Your task to perform on an android device: open a new tab in the chrome app Image 0: 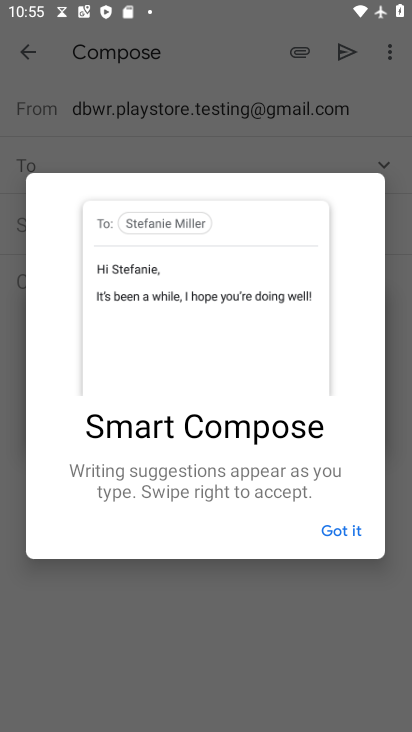
Step 0: press back button
Your task to perform on an android device: open a new tab in the chrome app Image 1: 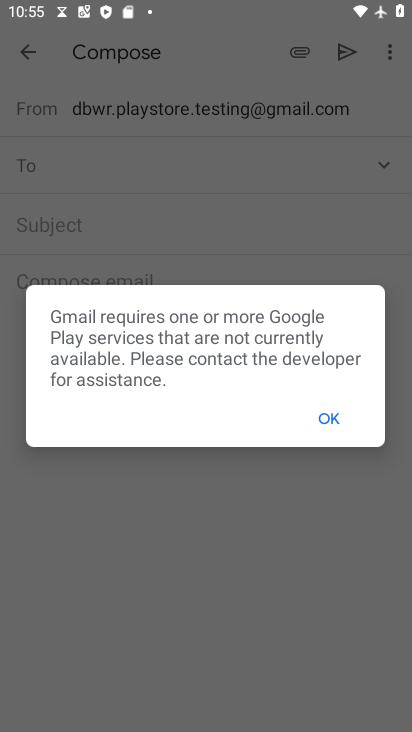
Step 1: press home button
Your task to perform on an android device: open a new tab in the chrome app Image 2: 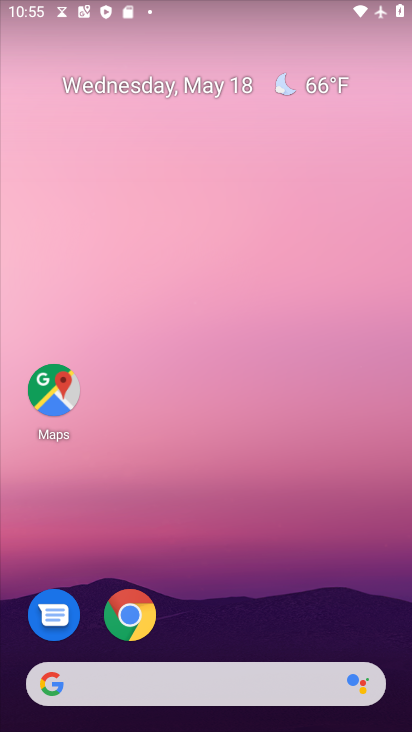
Step 2: drag from (206, 524) to (220, 44)
Your task to perform on an android device: open a new tab in the chrome app Image 3: 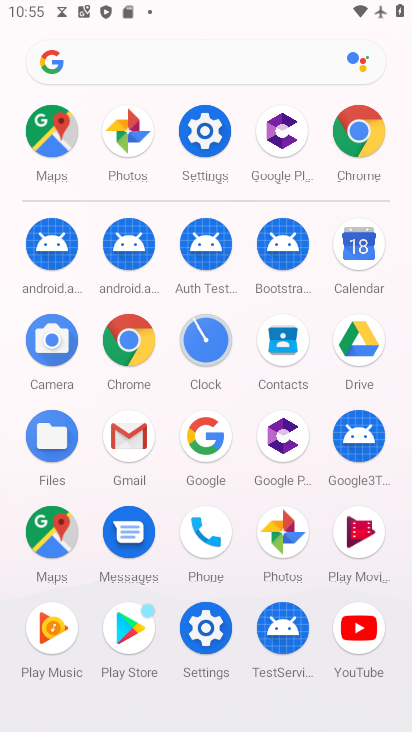
Step 3: drag from (13, 510) to (19, 227)
Your task to perform on an android device: open a new tab in the chrome app Image 4: 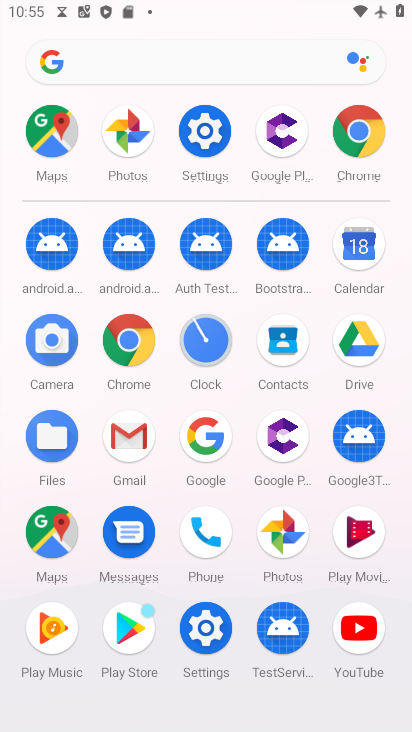
Step 4: click (129, 335)
Your task to perform on an android device: open a new tab in the chrome app Image 5: 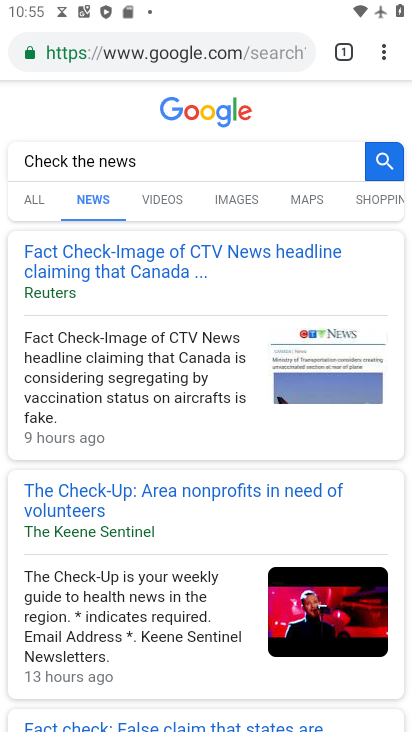
Step 5: task complete